Your task to perform on an android device: add a contact Image 0: 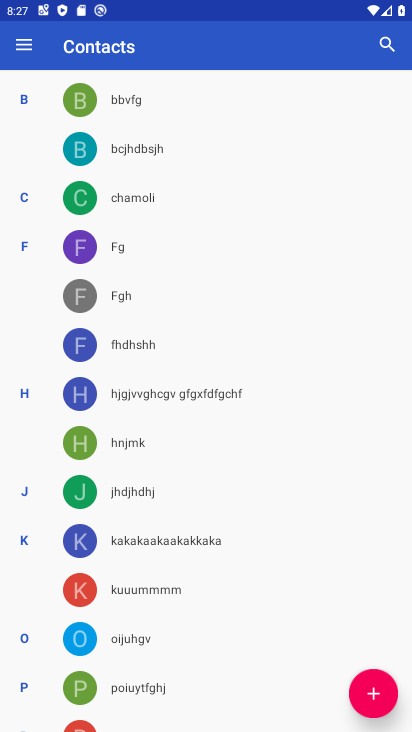
Step 0: click (369, 687)
Your task to perform on an android device: add a contact Image 1: 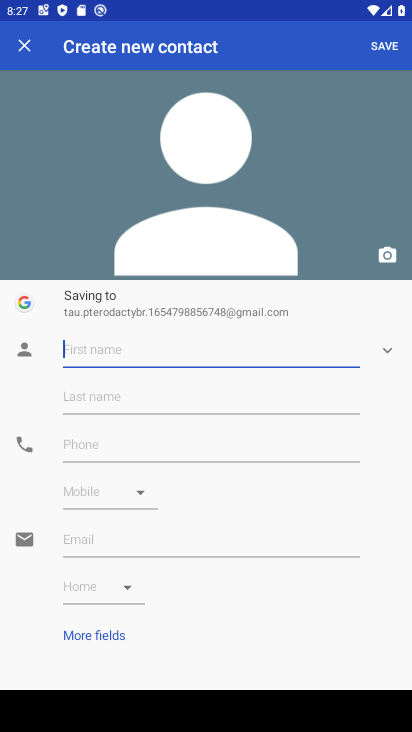
Step 1: type "autsdjhacj"
Your task to perform on an android device: add a contact Image 2: 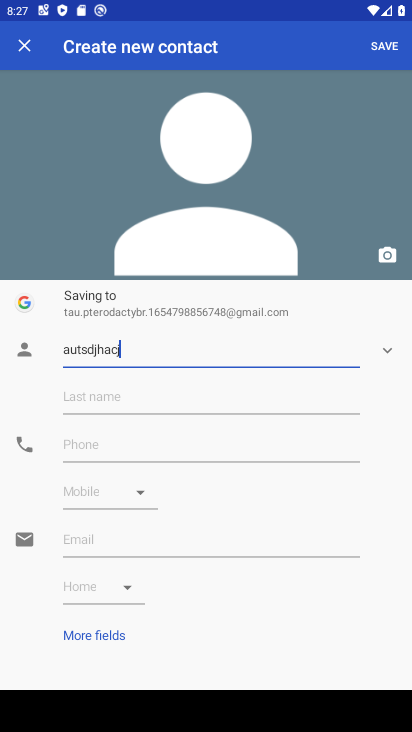
Step 2: click (228, 402)
Your task to perform on an android device: add a contact Image 3: 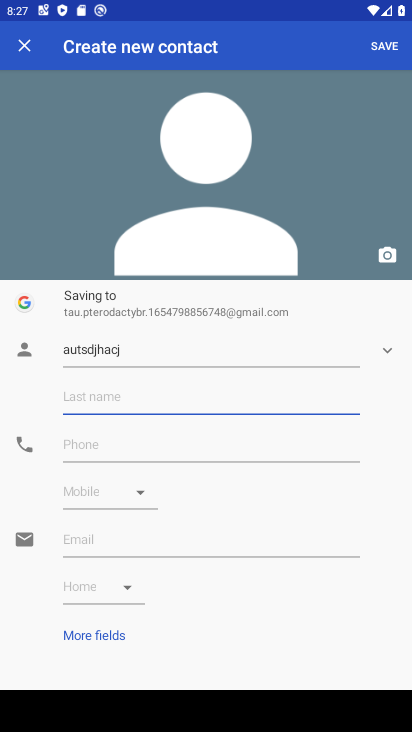
Step 3: type "sd csabfubfjsvu"
Your task to perform on an android device: add a contact Image 4: 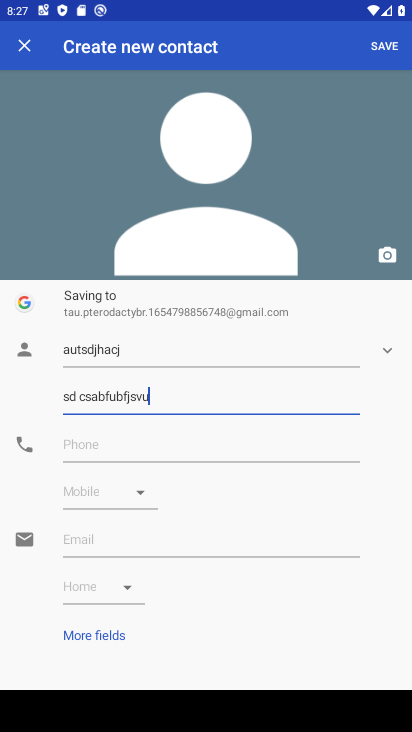
Step 4: click (119, 435)
Your task to perform on an android device: add a contact Image 5: 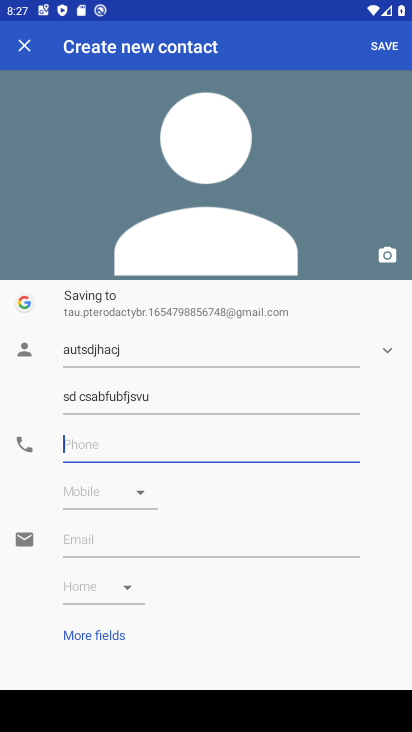
Step 5: type "5665783452378567"
Your task to perform on an android device: add a contact Image 6: 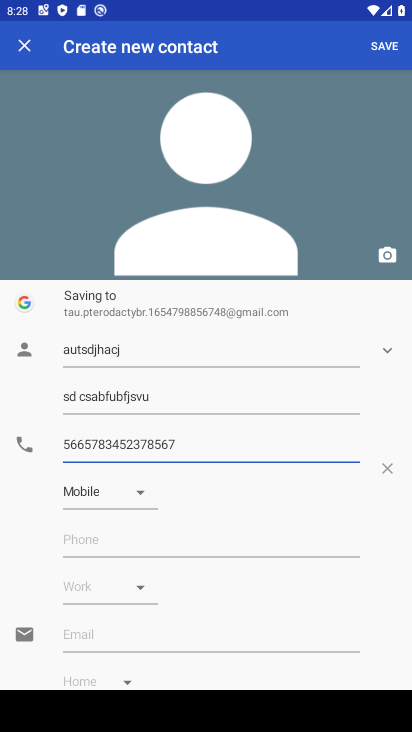
Step 6: click (387, 50)
Your task to perform on an android device: add a contact Image 7: 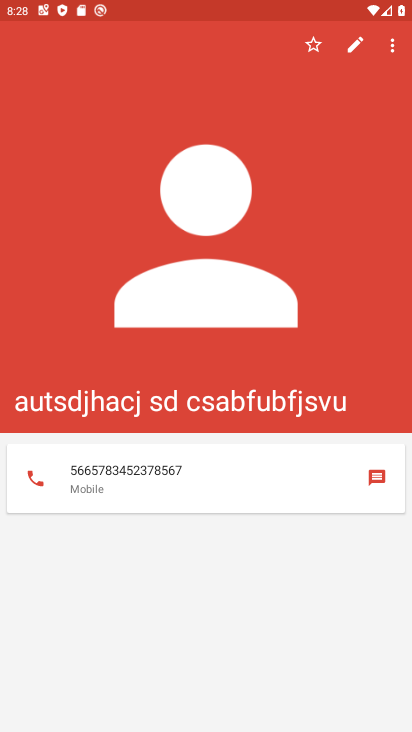
Step 7: task complete